Your task to perform on an android device: Open Yahoo.com Image 0: 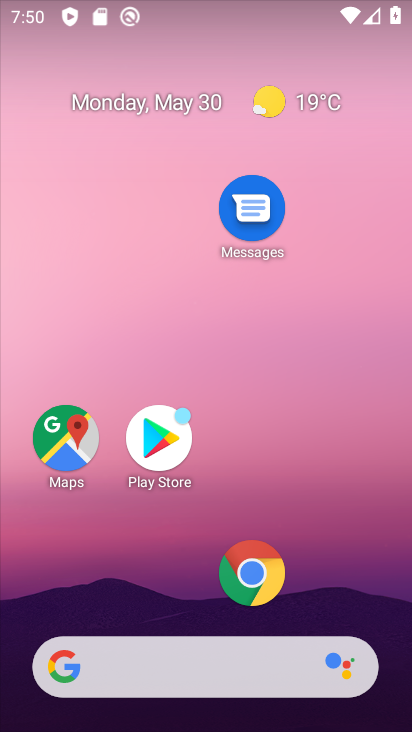
Step 0: click (260, 574)
Your task to perform on an android device: Open Yahoo.com Image 1: 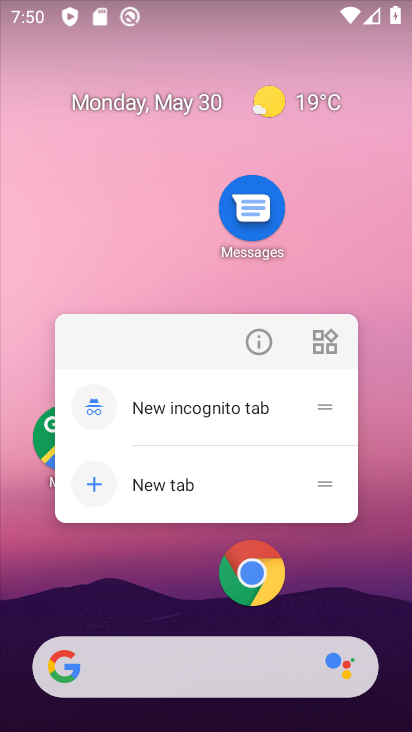
Step 1: click (259, 573)
Your task to perform on an android device: Open Yahoo.com Image 2: 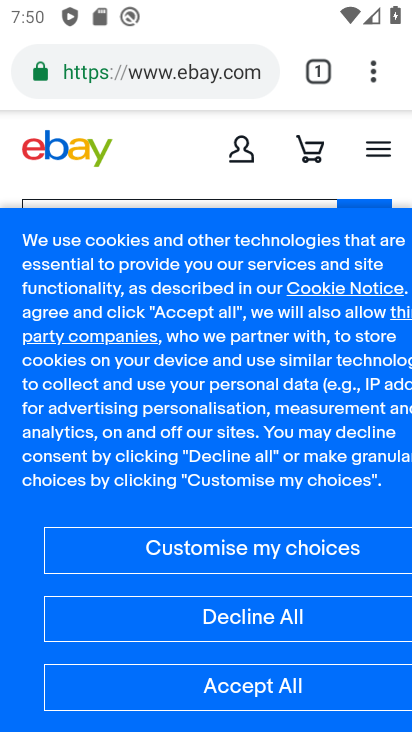
Step 2: click (184, 61)
Your task to perform on an android device: Open Yahoo.com Image 3: 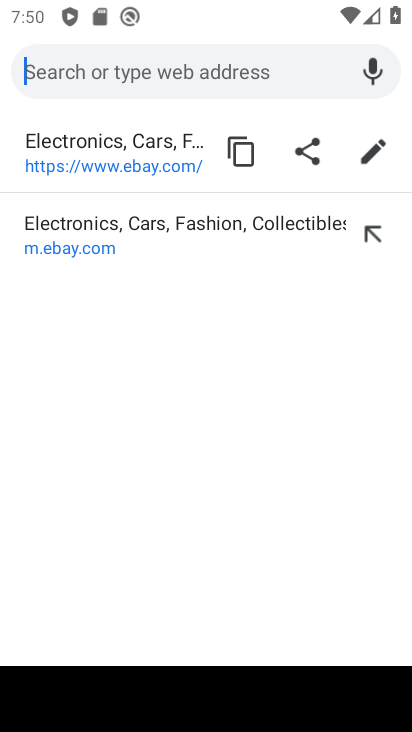
Step 3: type "Yahoo.com"
Your task to perform on an android device: Open Yahoo.com Image 4: 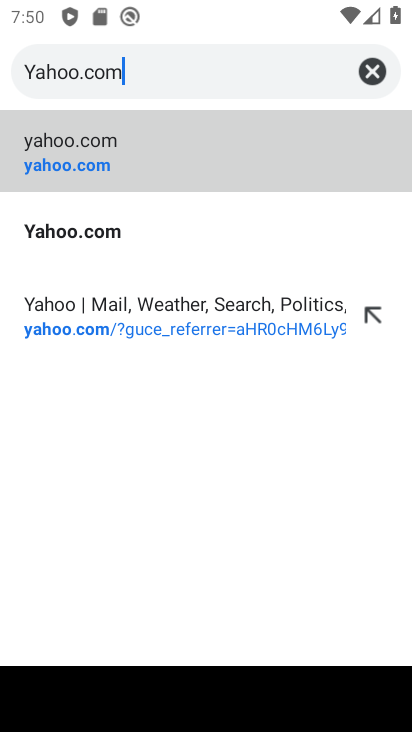
Step 4: click (97, 153)
Your task to perform on an android device: Open Yahoo.com Image 5: 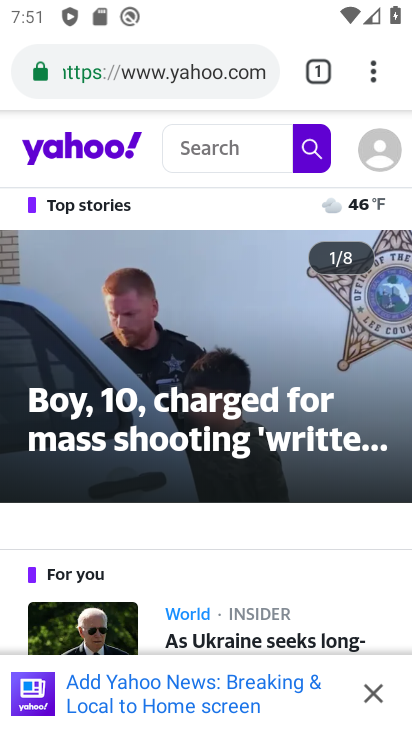
Step 5: task complete